Your task to perform on an android device: turn off translation in the chrome app Image 0: 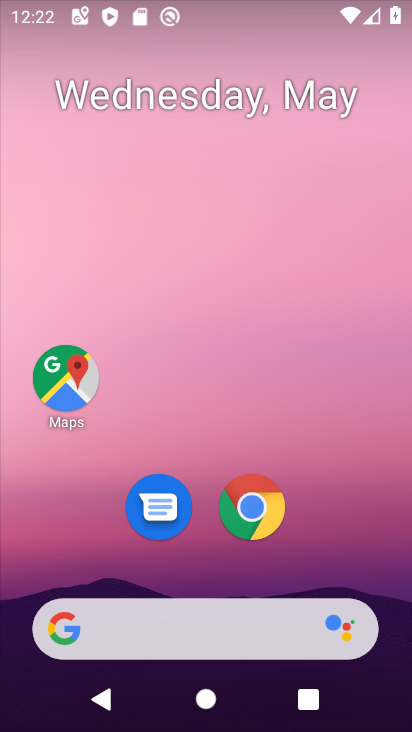
Step 0: drag from (301, 554) to (307, 169)
Your task to perform on an android device: turn off translation in the chrome app Image 1: 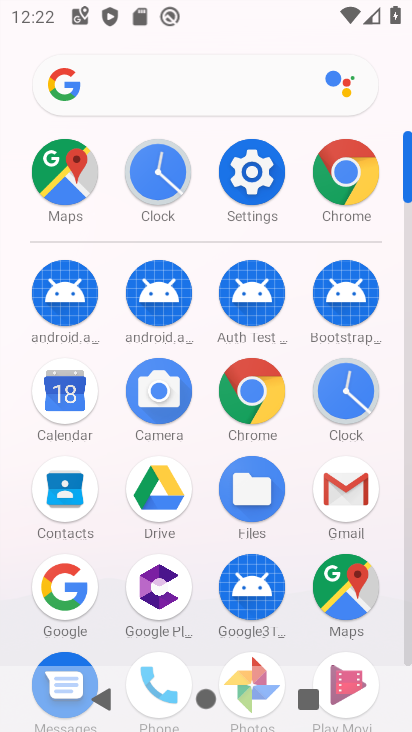
Step 1: click (259, 395)
Your task to perform on an android device: turn off translation in the chrome app Image 2: 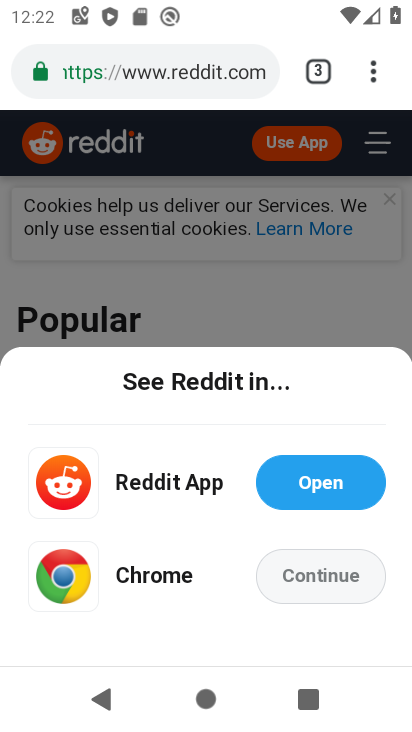
Step 2: click (379, 66)
Your task to perform on an android device: turn off translation in the chrome app Image 3: 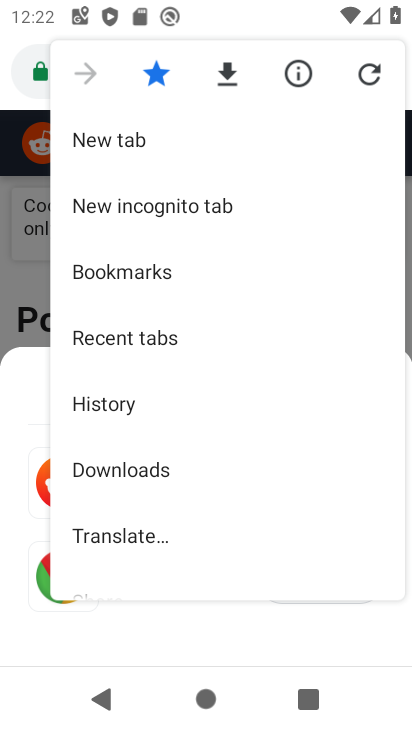
Step 3: drag from (269, 517) to (264, 235)
Your task to perform on an android device: turn off translation in the chrome app Image 4: 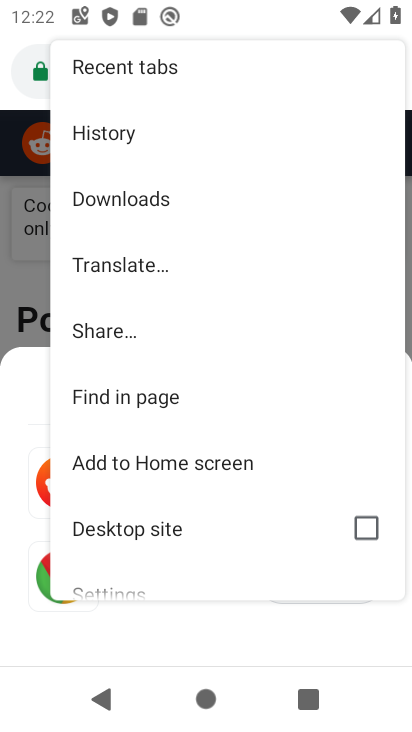
Step 4: drag from (158, 489) to (202, 219)
Your task to perform on an android device: turn off translation in the chrome app Image 5: 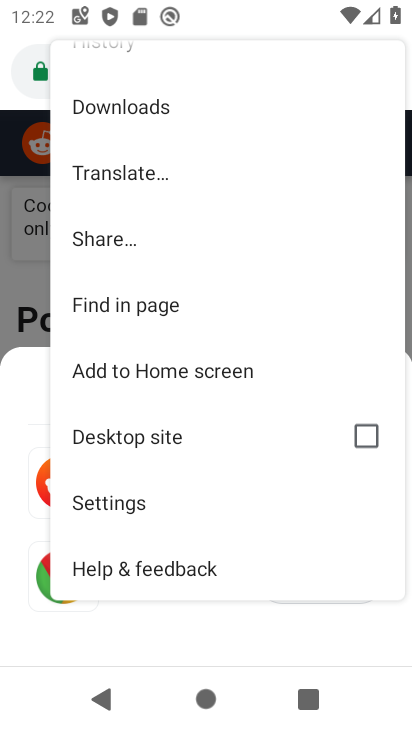
Step 5: click (111, 503)
Your task to perform on an android device: turn off translation in the chrome app Image 6: 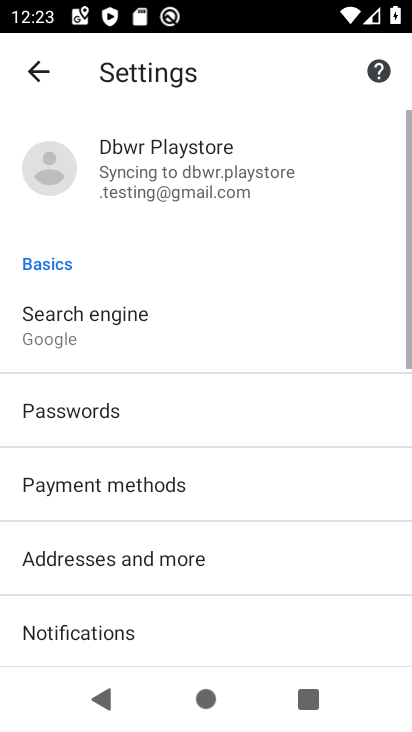
Step 6: drag from (172, 557) to (266, 137)
Your task to perform on an android device: turn off translation in the chrome app Image 7: 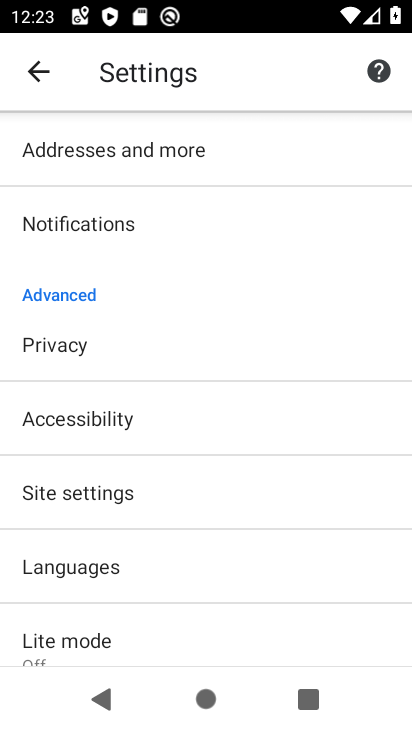
Step 7: click (162, 563)
Your task to perform on an android device: turn off translation in the chrome app Image 8: 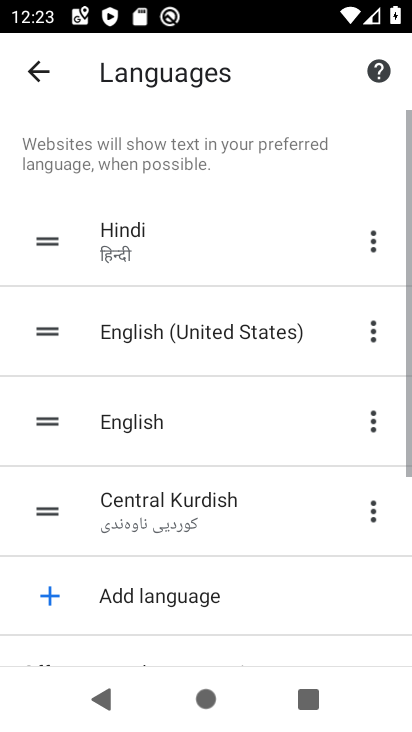
Step 8: drag from (267, 582) to (257, 175)
Your task to perform on an android device: turn off translation in the chrome app Image 9: 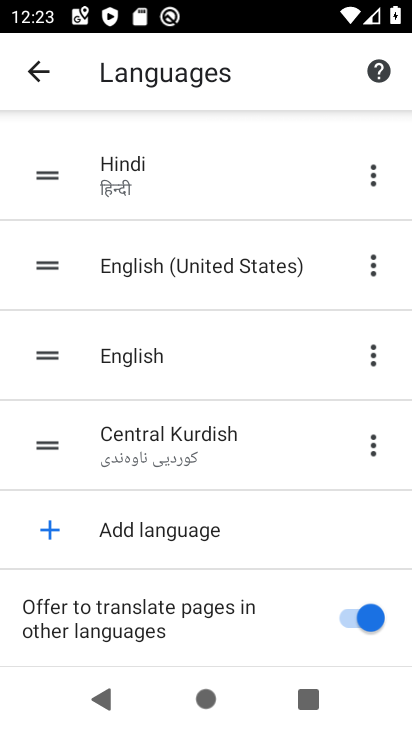
Step 9: click (341, 611)
Your task to perform on an android device: turn off translation in the chrome app Image 10: 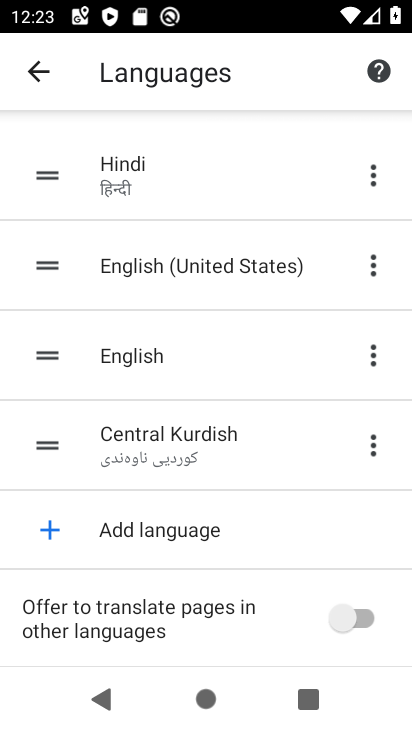
Step 10: task complete